Your task to perform on an android device: Go to CNN.com Image 0: 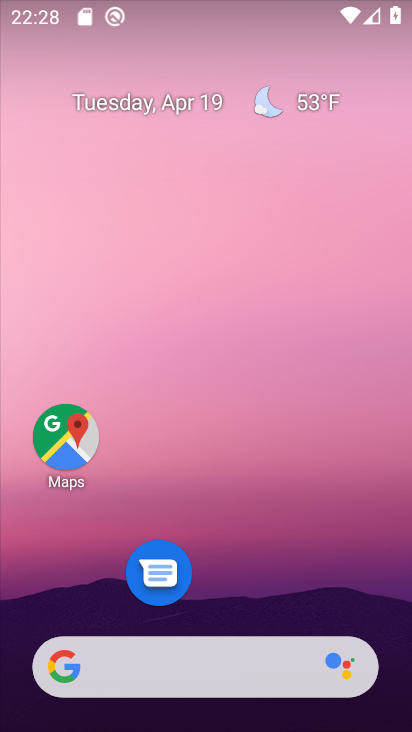
Step 0: drag from (214, 597) to (236, 20)
Your task to perform on an android device: Go to CNN.com Image 1: 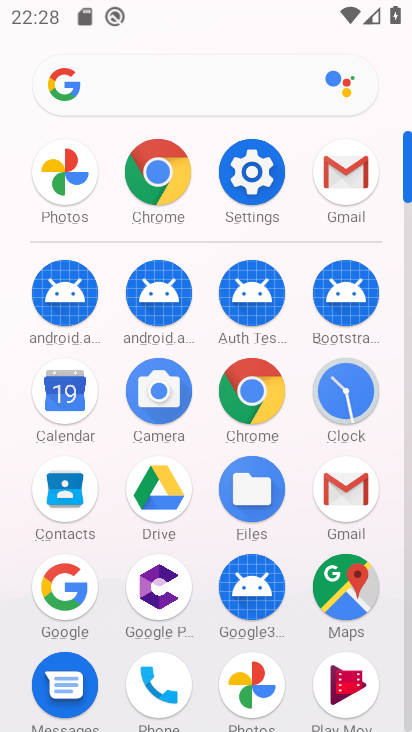
Step 1: click (157, 167)
Your task to perform on an android device: Go to CNN.com Image 2: 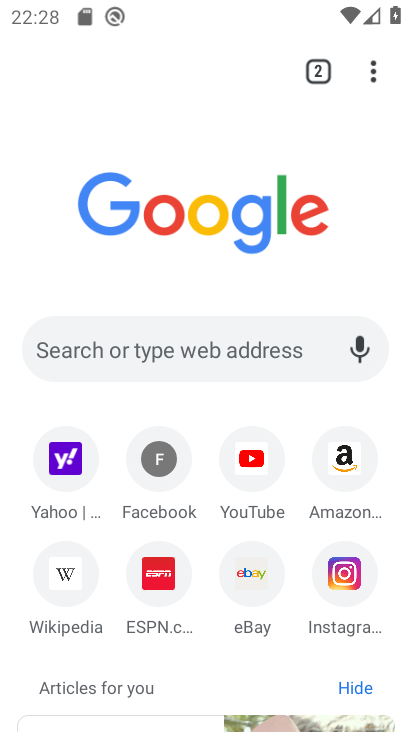
Step 2: click (165, 348)
Your task to perform on an android device: Go to CNN.com Image 3: 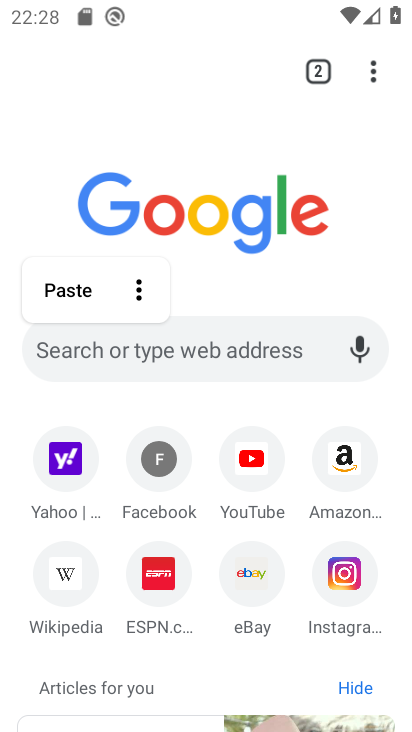
Step 3: click (139, 349)
Your task to perform on an android device: Go to CNN.com Image 4: 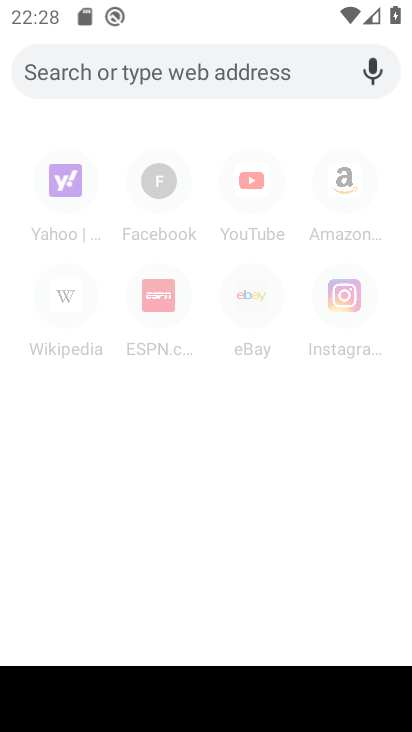
Step 4: type "cnn.com"
Your task to perform on an android device: Go to CNN.com Image 5: 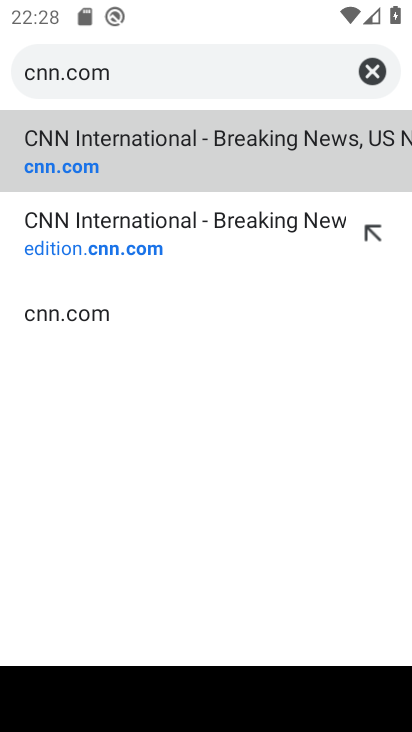
Step 5: click (117, 156)
Your task to perform on an android device: Go to CNN.com Image 6: 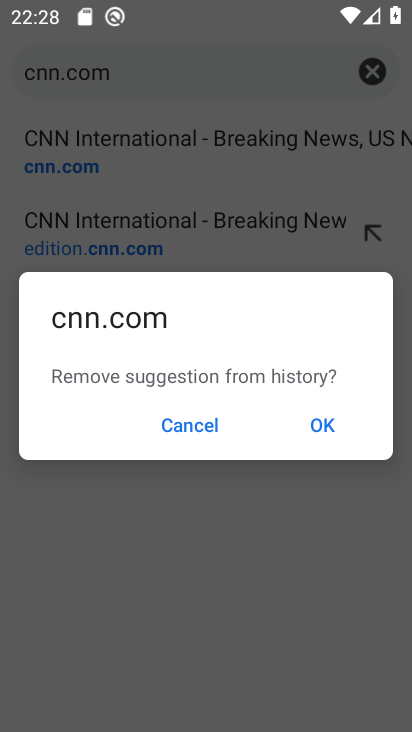
Step 6: click (211, 424)
Your task to perform on an android device: Go to CNN.com Image 7: 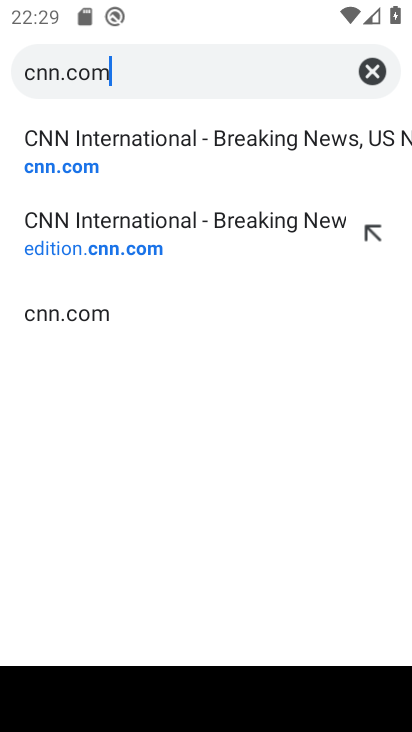
Step 7: click (197, 151)
Your task to perform on an android device: Go to CNN.com Image 8: 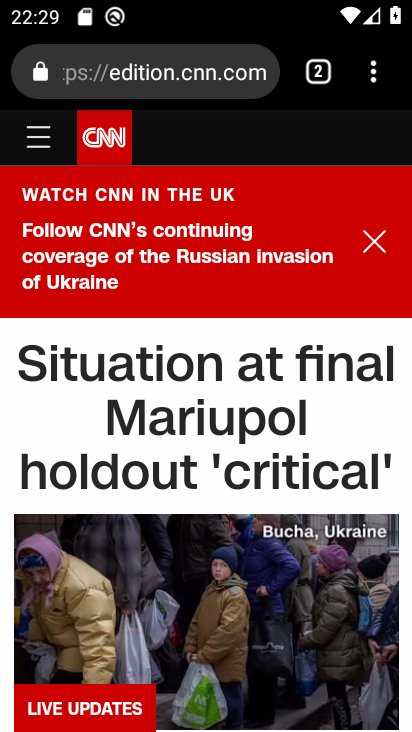
Step 8: task complete